Your task to perform on an android device: change the upload size in google photos Image 0: 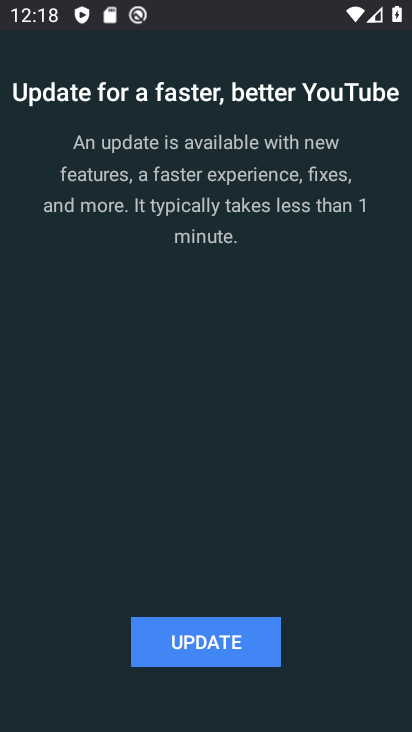
Step 0: press back button
Your task to perform on an android device: change the upload size in google photos Image 1: 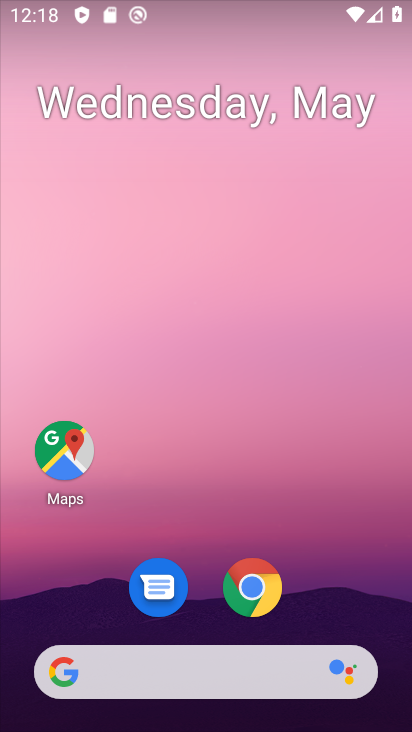
Step 1: drag from (52, 637) to (150, 235)
Your task to perform on an android device: change the upload size in google photos Image 2: 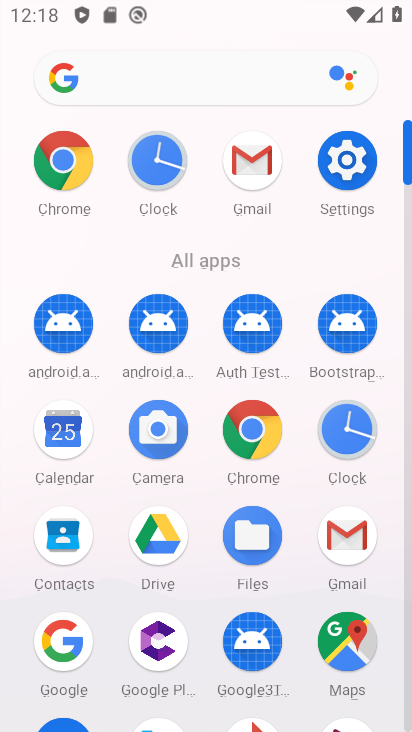
Step 2: drag from (186, 616) to (228, 404)
Your task to perform on an android device: change the upload size in google photos Image 3: 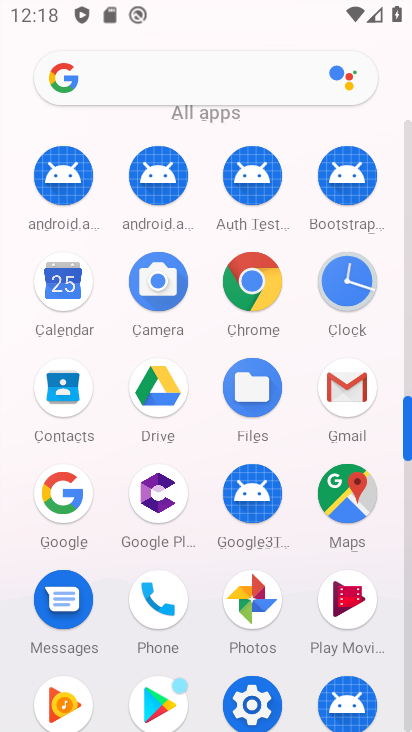
Step 3: click (264, 616)
Your task to perform on an android device: change the upload size in google photos Image 4: 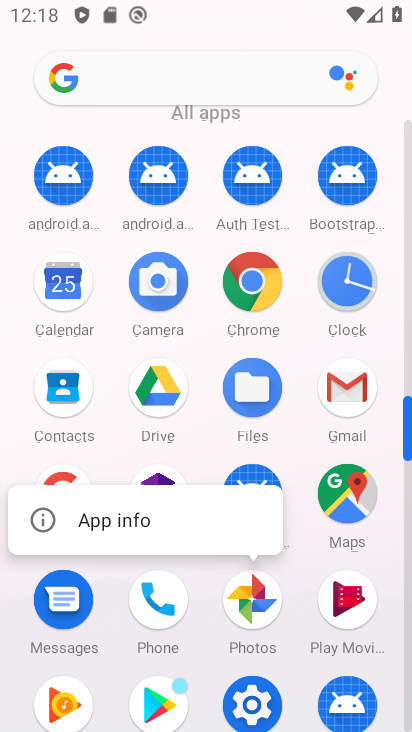
Step 4: click (250, 602)
Your task to perform on an android device: change the upload size in google photos Image 5: 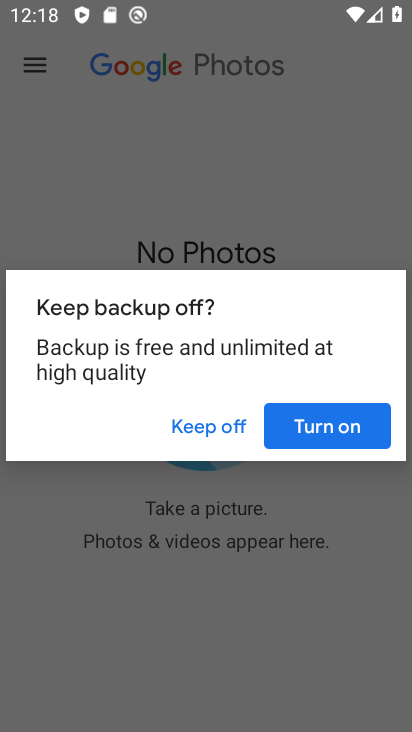
Step 5: click (221, 437)
Your task to perform on an android device: change the upload size in google photos Image 6: 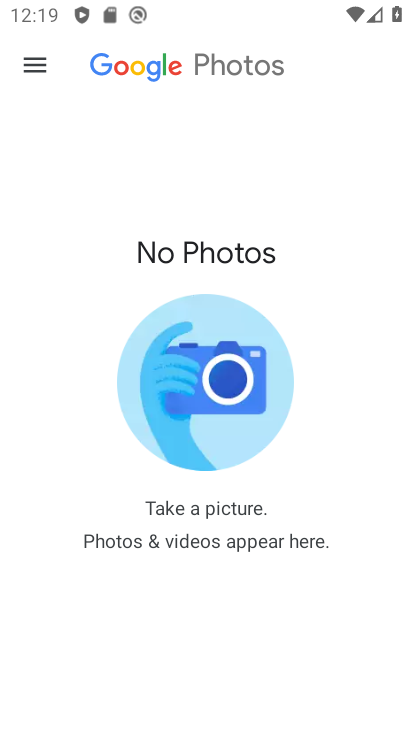
Step 6: click (44, 58)
Your task to perform on an android device: change the upload size in google photos Image 7: 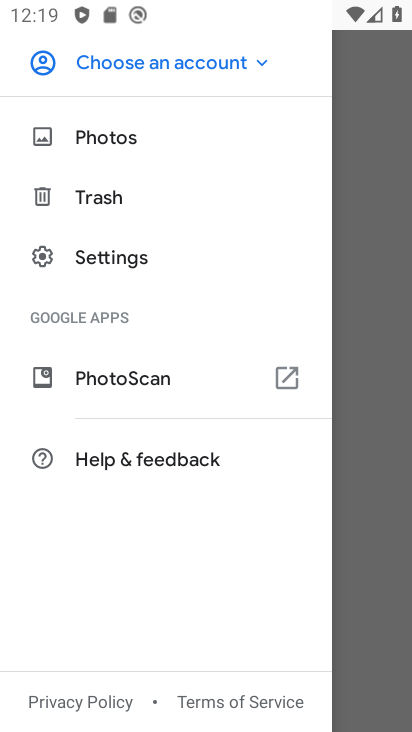
Step 7: click (141, 275)
Your task to perform on an android device: change the upload size in google photos Image 8: 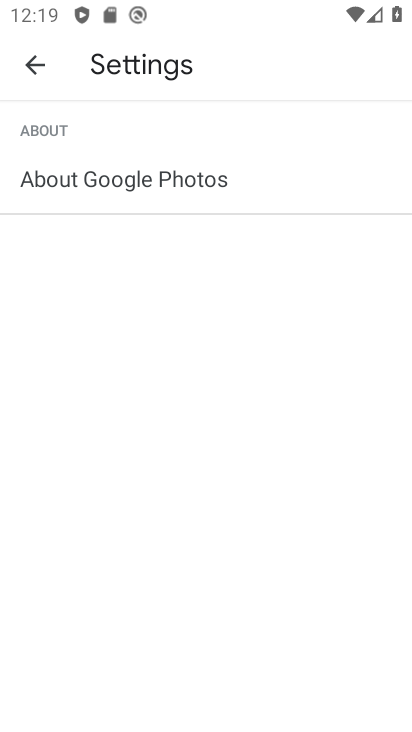
Step 8: click (31, 84)
Your task to perform on an android device: change the upload size in google photos Image 9: 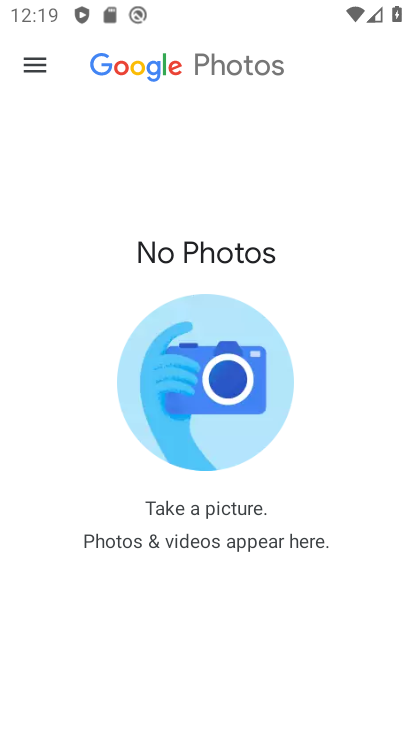
Step 9: click (26, 78)
Your task to perform on an android device: change the upload size in google photos Image 10: 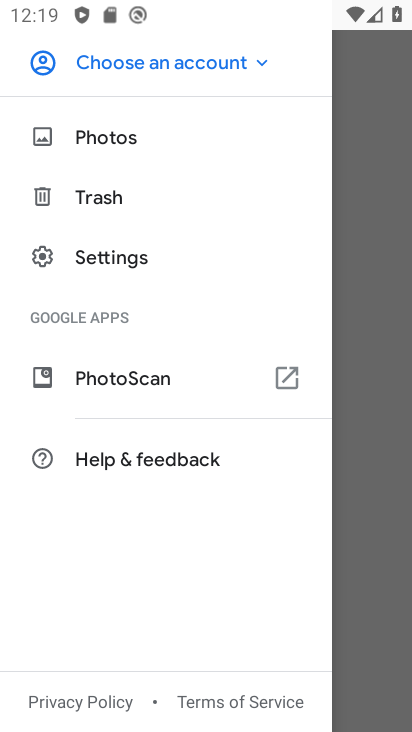
Step 10: click (130, 249)
Your task to perform on an android device: change the upload size in google photos Image 11: 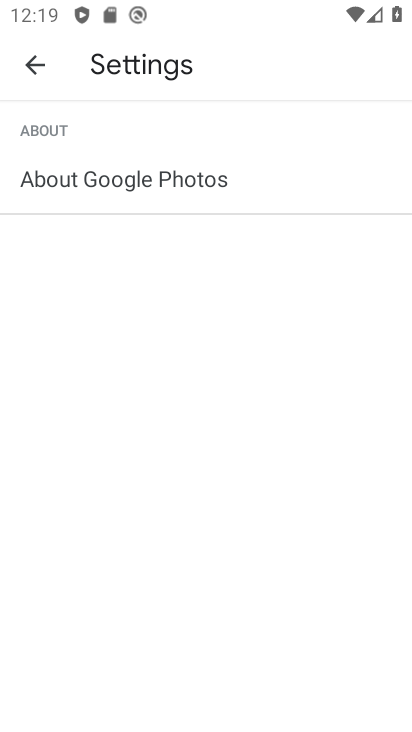
Step 11: click (32, 63)
Your task to perform on an android device: change the upload size in google photos Image 12: 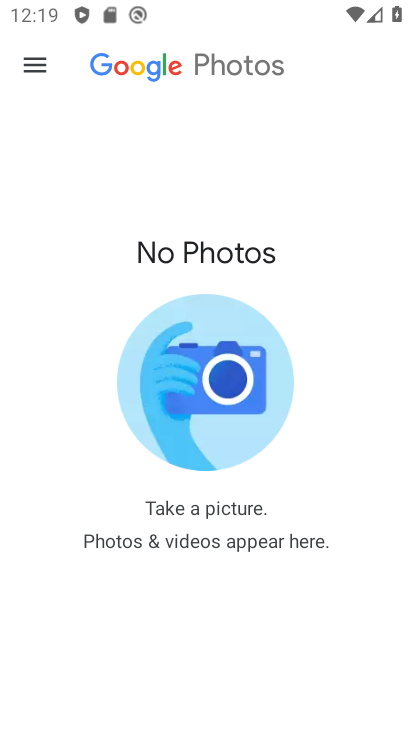
Step 12: task complete